Your task to perform on an android device: turn off improve location accuracy Image 0: 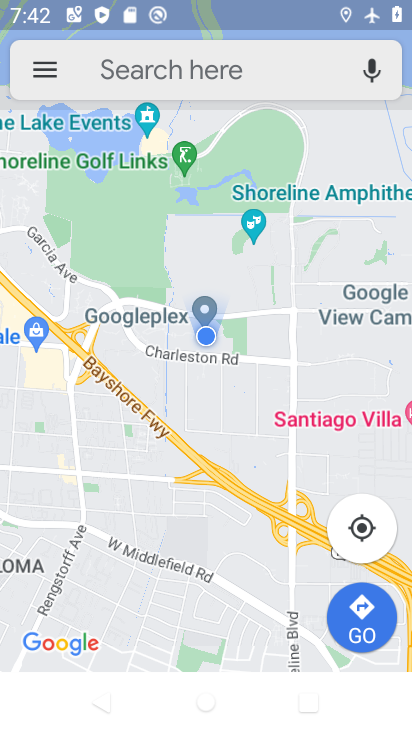
Step 0: press home button
Your task to perform on an android device: turn off improve location accuracy Image 1: 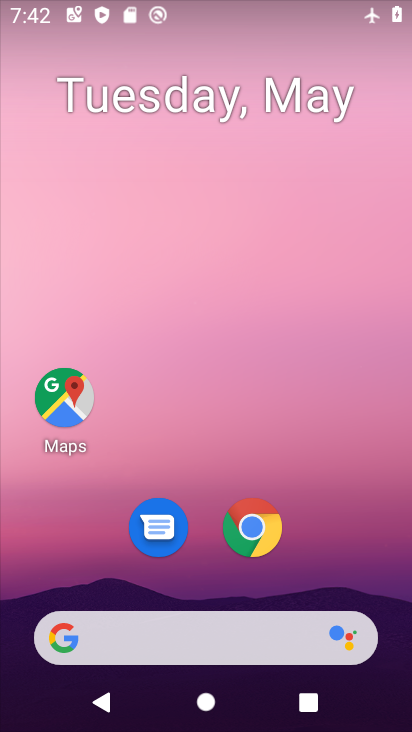
Step 1: drag from (319, 564) to (230, 197)
Your task to perform on an android device: turn off improve location accuracy Image 2: 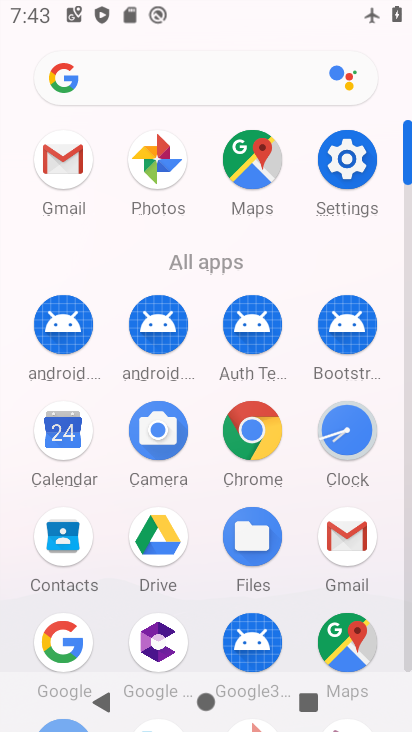
Step 2: click (348, 160)
Your task to perform on an android device: turn off improve location accuracy Image 3: 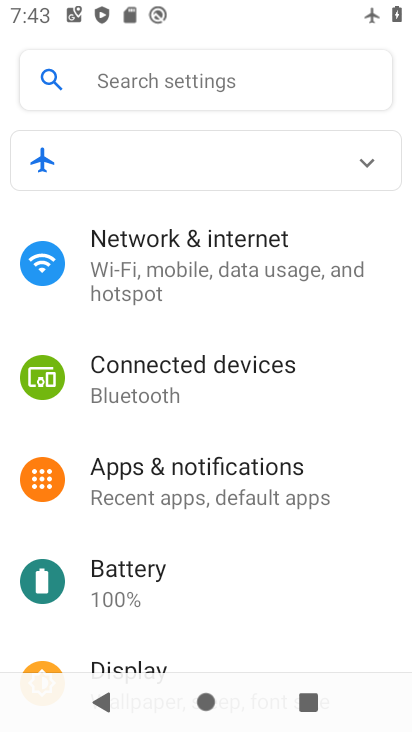
Step 3: drag from (183, 553) to (212, 435)
Your task to perform on an android device: turn off improve location accuracy Image 4: 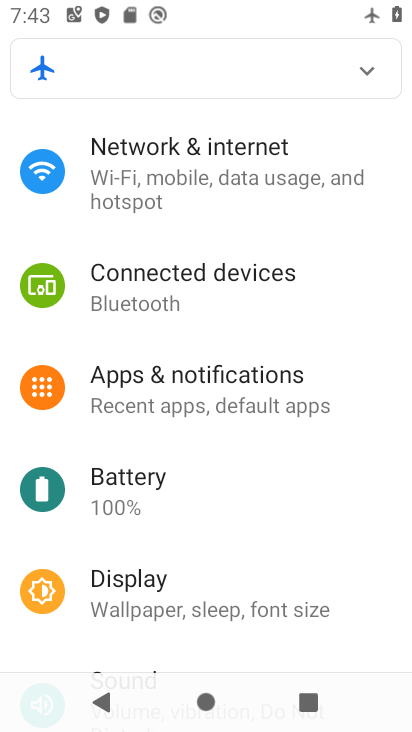
Step 4: drag from (209, 548) to (258, 433)
Your task to perform on an android device: turn off improve location accuracy Image 5: 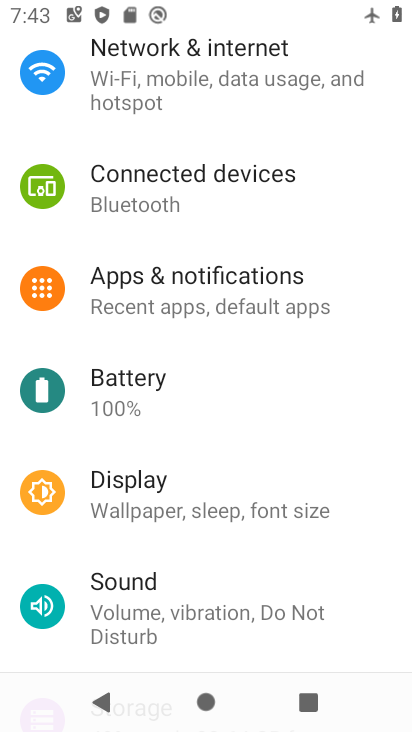
Step 5: drag from (223, 543) to (284, 449)
Your task to perform on an android device: turn off improve location accuracy Image 6: 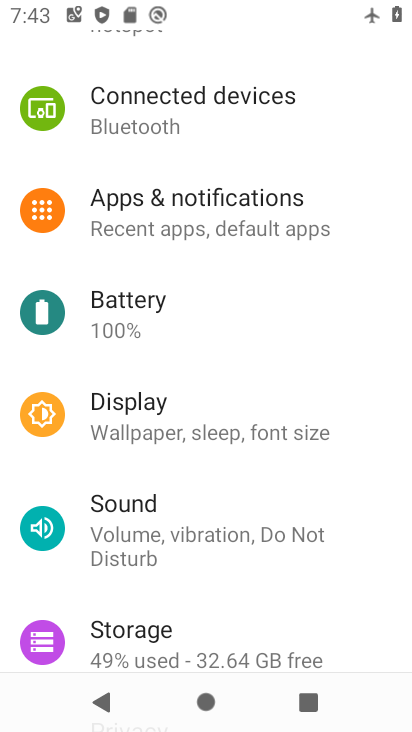
Step 6: drag from (179, 585) to (237, 490)
Your task to perform on an android device: turn off improve location accuracy Image 7: 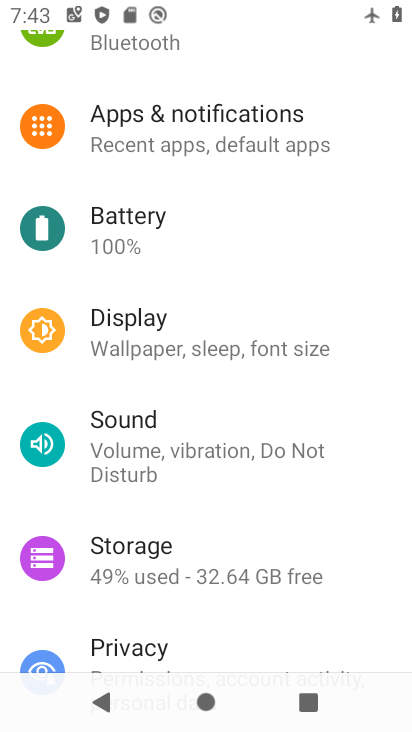
Step 7: drag from (204, 524) to (251, 433)
Your task to perform on an android device: turn off improve location accuracy Image 8: 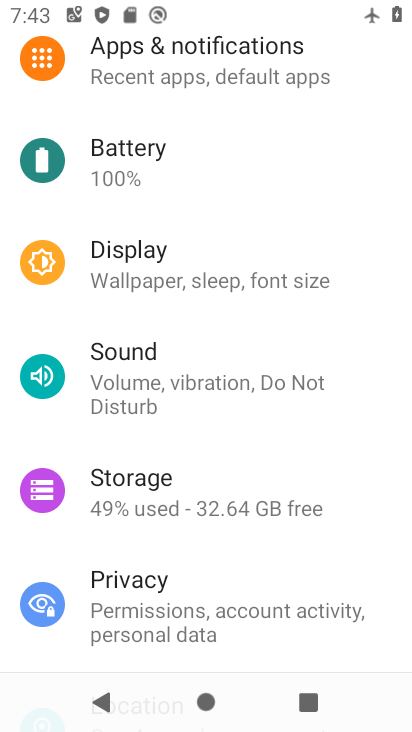
Step 8: drag from (202, 561) to (246, 403)
Your task to perform on an android device: turn off improve location accuracy Image 9: 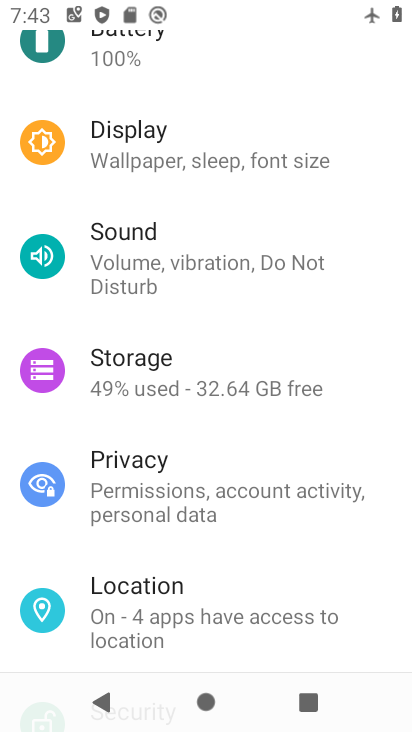
Step 9: drag from (191, 550) to (258, 442)
Your task to perform on an android device: turn off improve location accuracy Image 10: 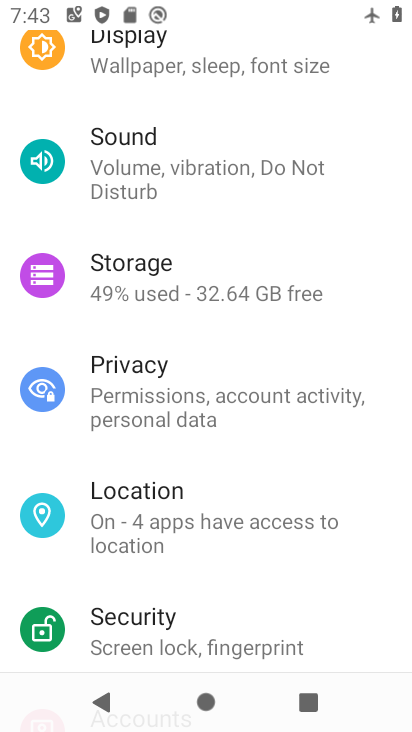
Step 10: click (165, 505)
Your task to perform on an android device: turn off improve location accuracy Image 11: 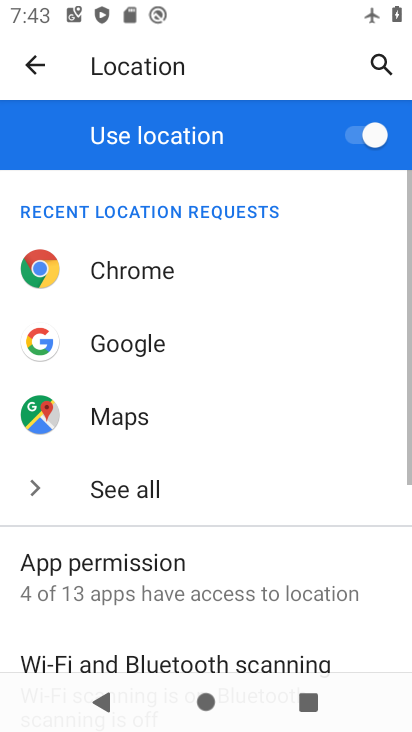
Step 11: drag from (235, 615) to (271, 504)
Your task to perform on an android device: turn off improve location accuracy Image 12: 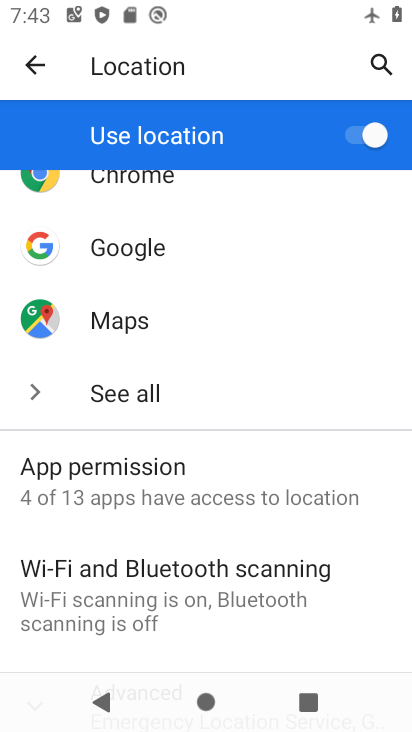
Step 12: drag from (221, 622) to (272, 527)
Your task to perform on an android device: turn off improve location accuracy Image 13: 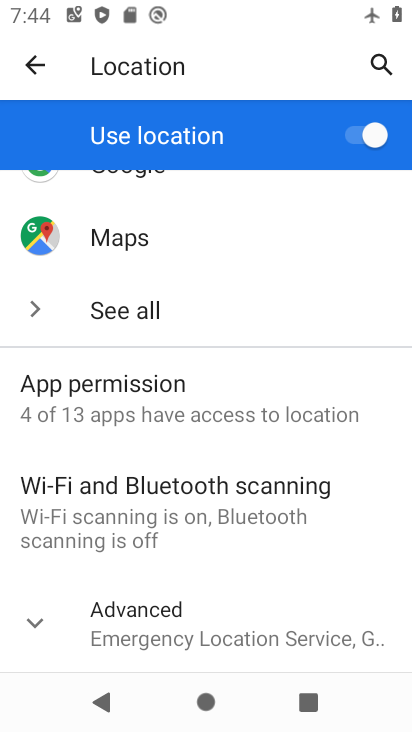
Step 13: click (193, 636)
Your task to perform on an android device: turn off improve location accuracy Image 14: 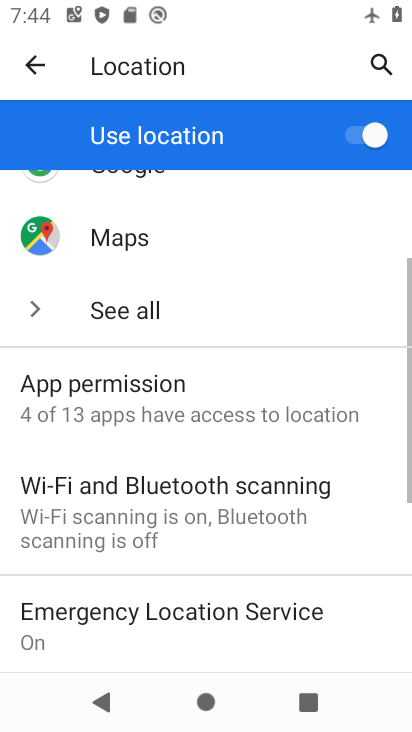
Step 14: drag from (193, 636) to (267, 470)
Your task to perform on an android device: turn off improve location accuracy Image 15: 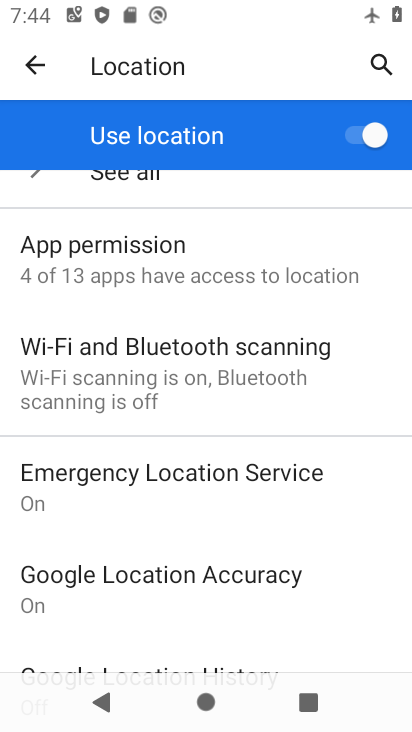
Step 15: click (241, 572)
Your task to perform on an android device: turn off improve location accuracy Image 16: 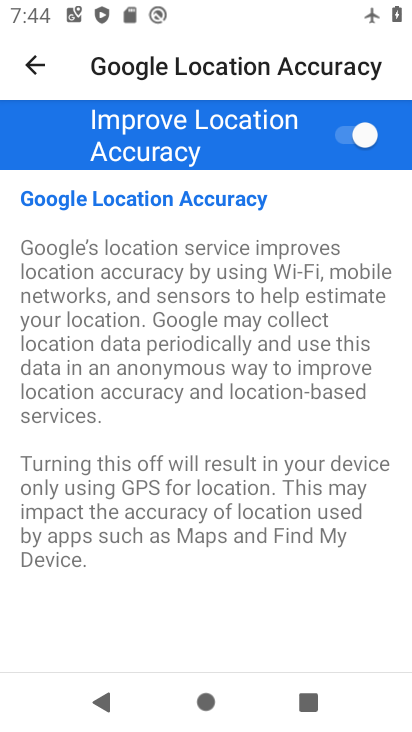
Step 16: click (346, 137)
Your task to perform on an android device: turn off improve location accuracy Image 17: 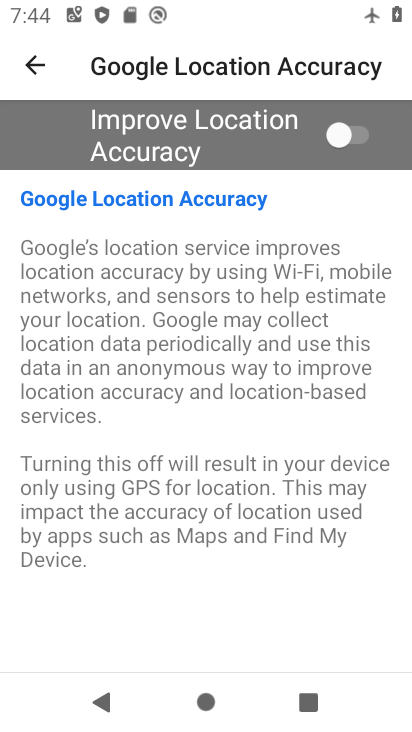
Step 17: task complete